Your task to perform on an android device: What's the price of the EGO 14-in 56-Volt Brushless Cordless Chainsaw? Image 0: 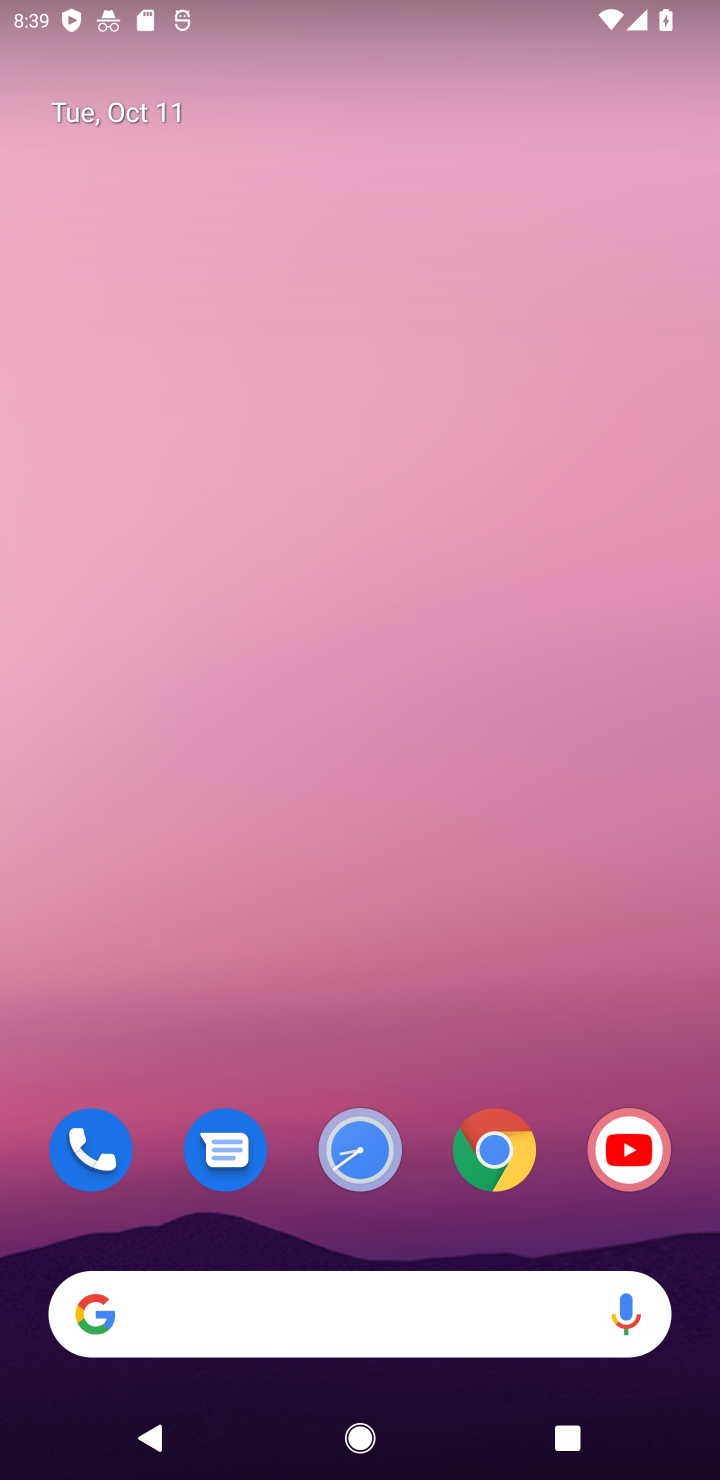
Step 0: click (490, 1149)
Your task to perform on an android device: What's the price of the EGO 14-in 56-Volt Brushless Cordless Chainsaw? Image 1: 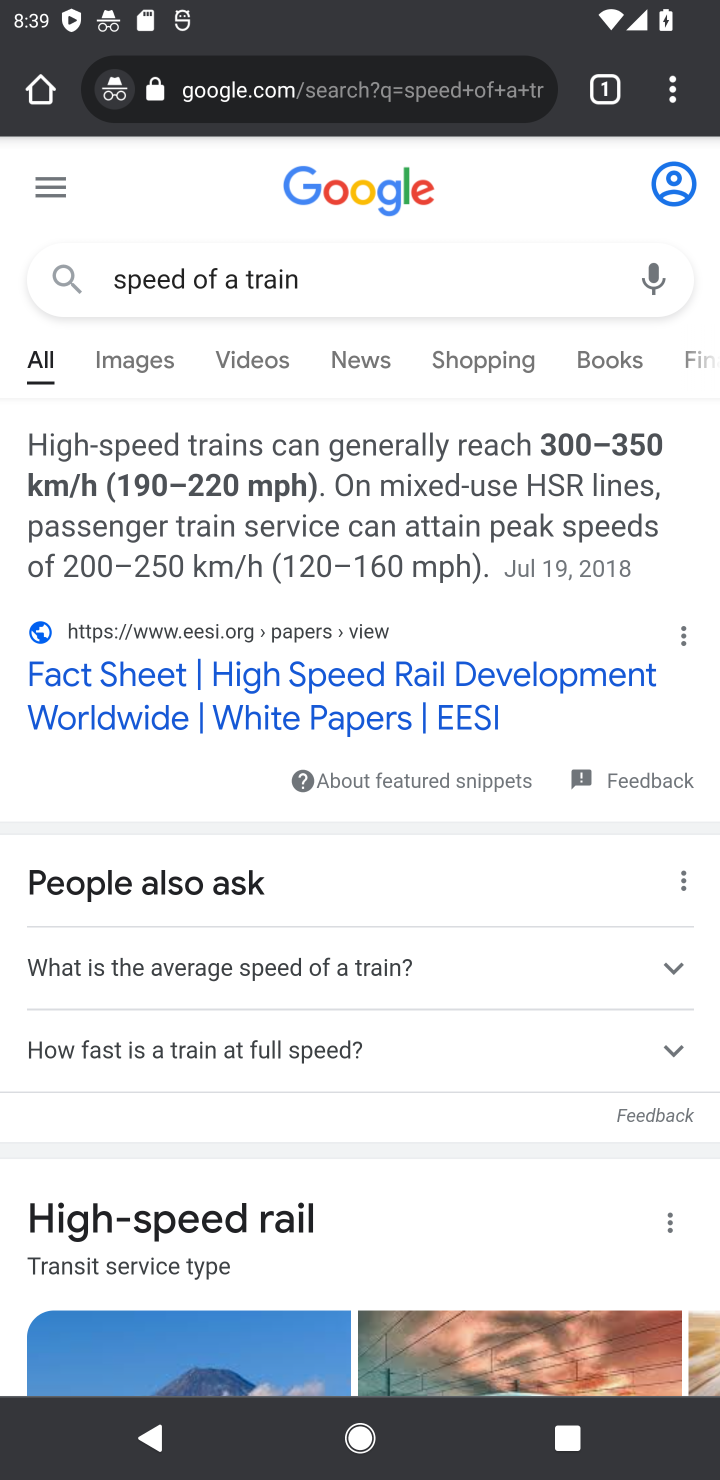
Step 1: click (311, 97)
Your task to perform on an android device: What's the price of the EGO 14-in 56-Volt Brushless Cordless Chainsaw? Image 2: 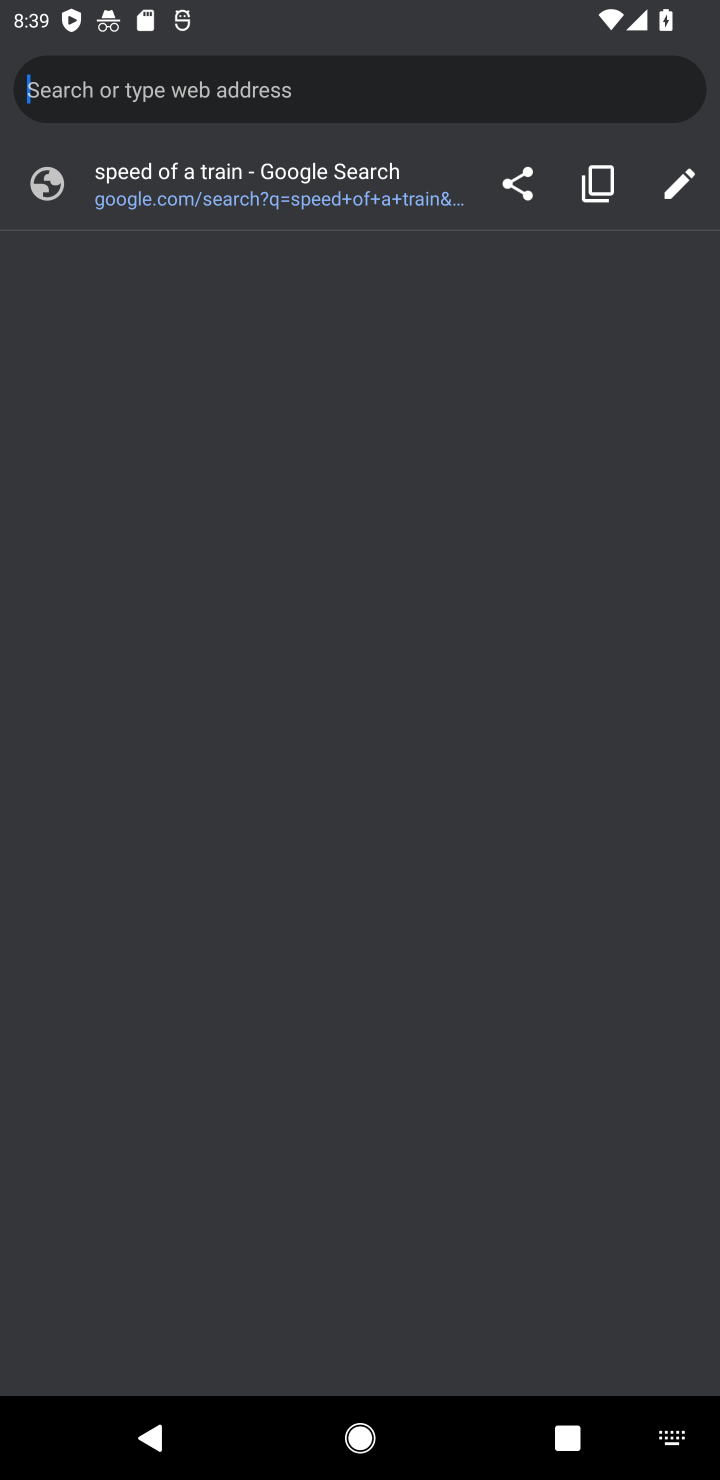
Step 2: type "price of the EGO 14-in 56-Volt Brushless Cordless Chainsaw"
Your task to perform on an android device: What's the price of the EGO 14-in 56-Volt Brushless Cordless Chainsaw? Image 3: 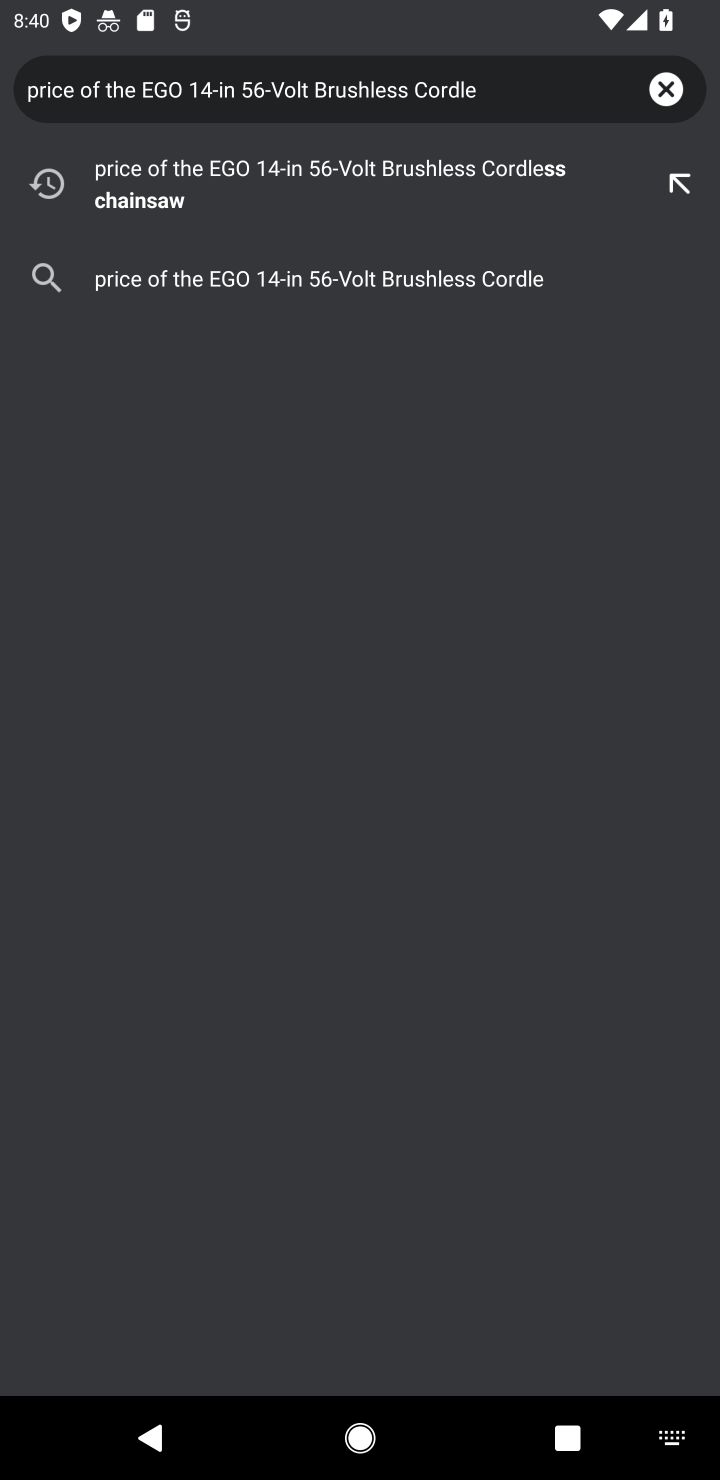
Step 3: type "ss chainsaw"
Your task to perform on an android device: What's the price of the EGO 14-in 56-Volt Brushless Cordless Chainsaw? Image 4: 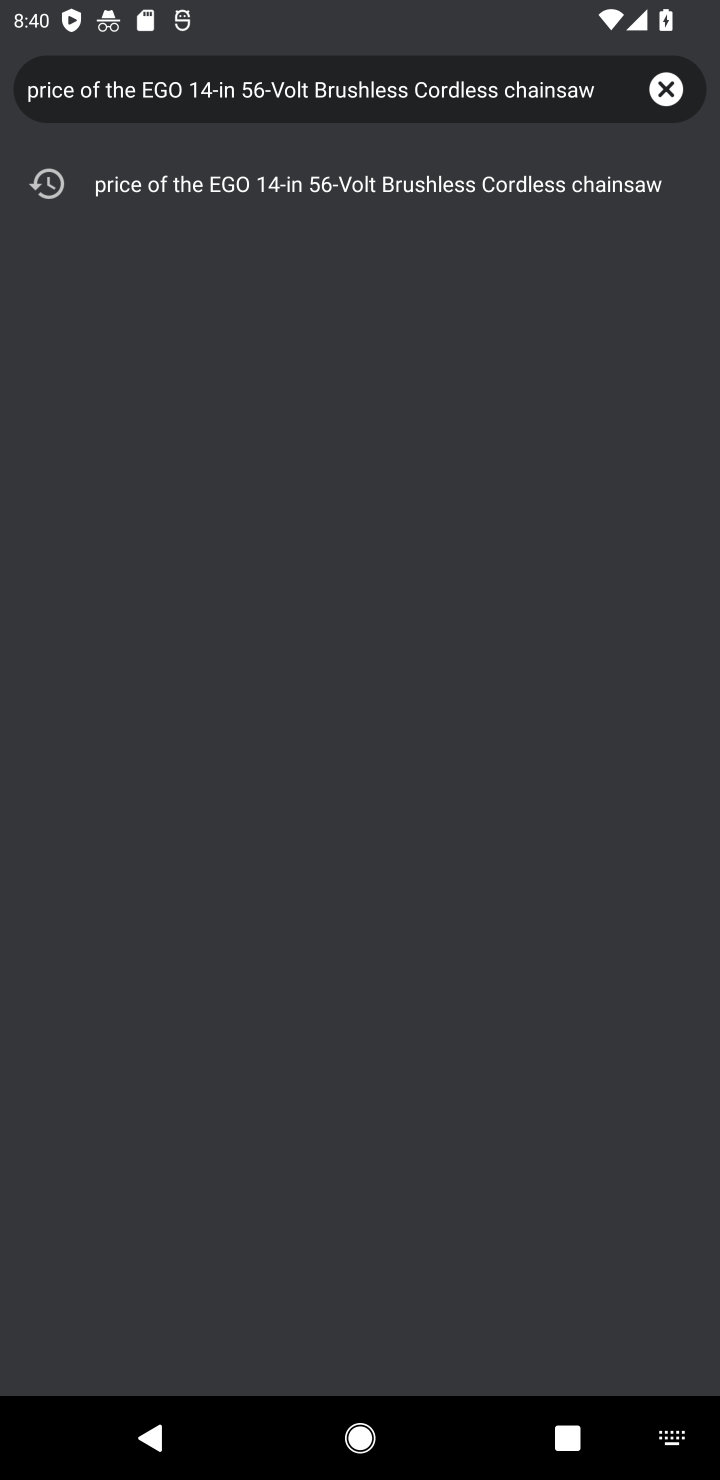
Step 4: click (237, 193)
Your task to perform on an android device: What's the price of the EGO 14-in 56-Volt Brushless Cordless Chainsaw? Image 5: 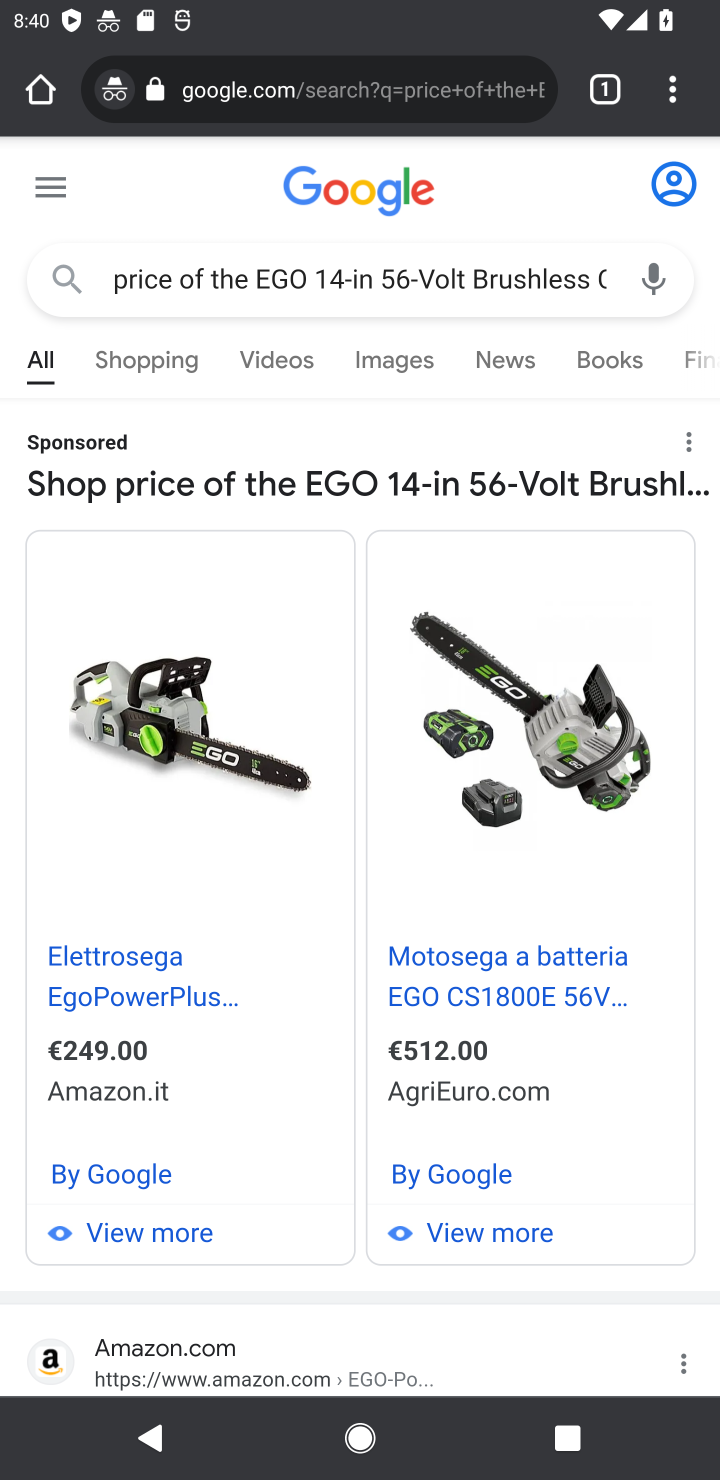
Step 5: task complete